Your task to perform on an android device: find snoozed emails in the gmail app Image 0: 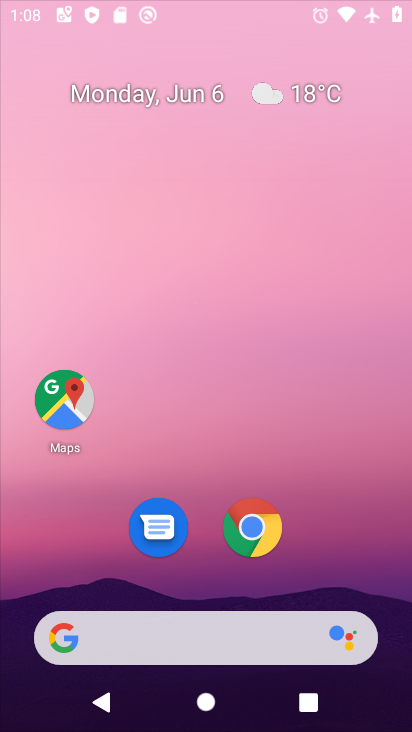
Step 0: press home button
Your task to perform on an android device: find snoozed emails in the gmail app Image 1: 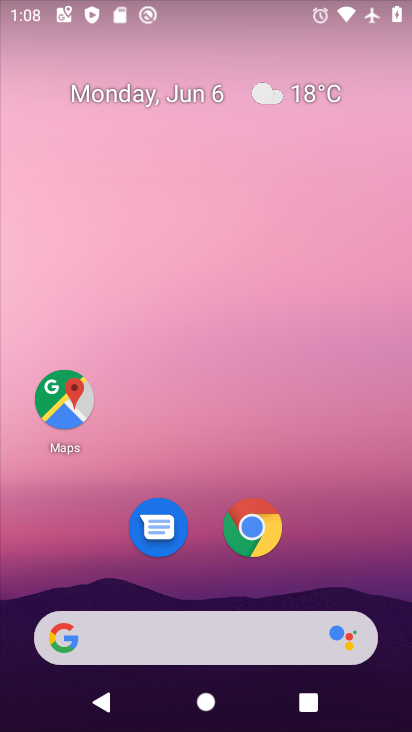
Step 1: drag from (338, 611) to (155, 40)
Your task to perform on an android device: find snoozed emails in the gmail app Image 2: 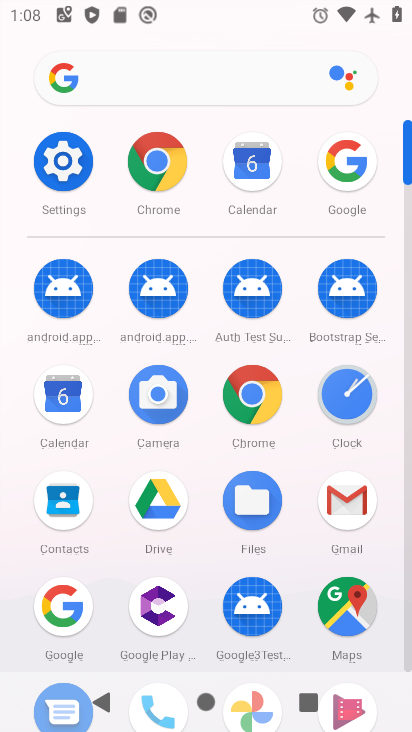
Step 2: click (353, 483)
Your task to perform on an android device: find snoozed emails in the gmail app Image 3: 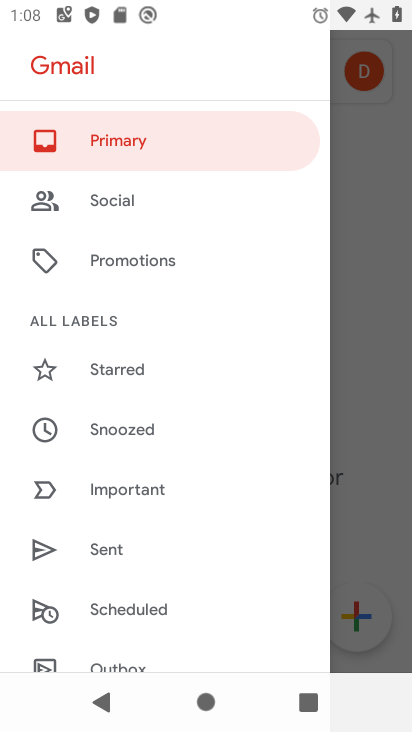
Step 3: click (125, 428)
Your task to perform on an android device: find snoozed emails in the gmail app Image 4: 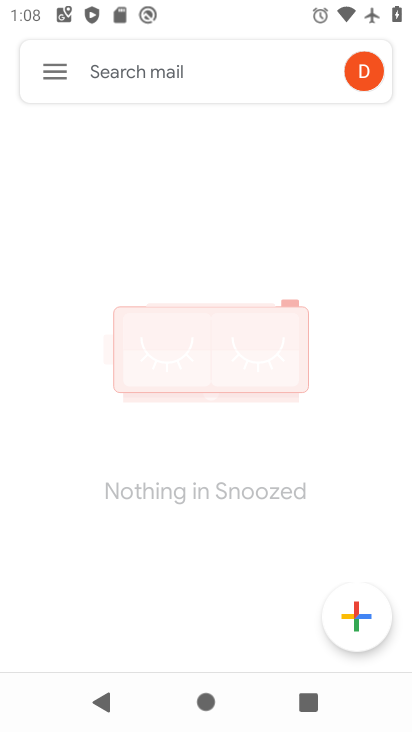
Step 4: task complete